Your task to perform on an android device: Open accessibility settings Image 0: 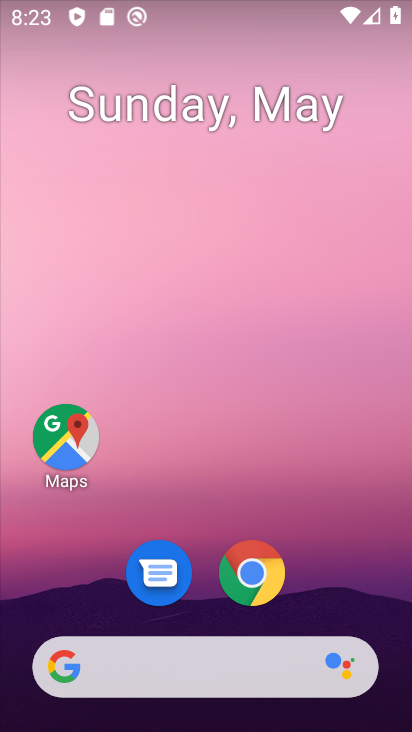
Step 0: drag from (374, 618) to (301, 199)
Your task to perform on an android device: Open accessibility settings Image 1: 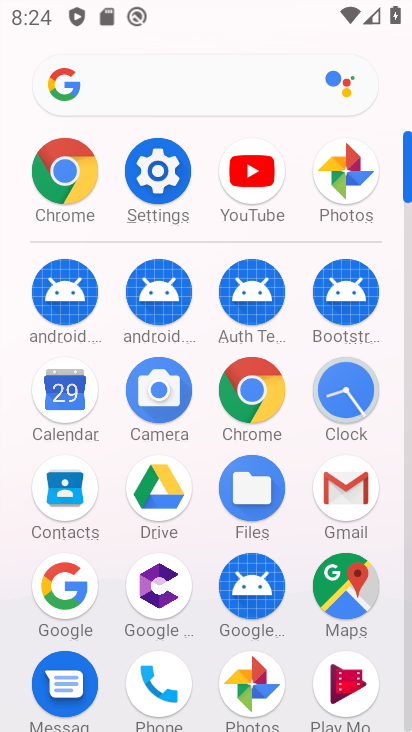
Step 1: click (170, 184)
Your task to perform on an android device: Open accessibility settings Image 2: 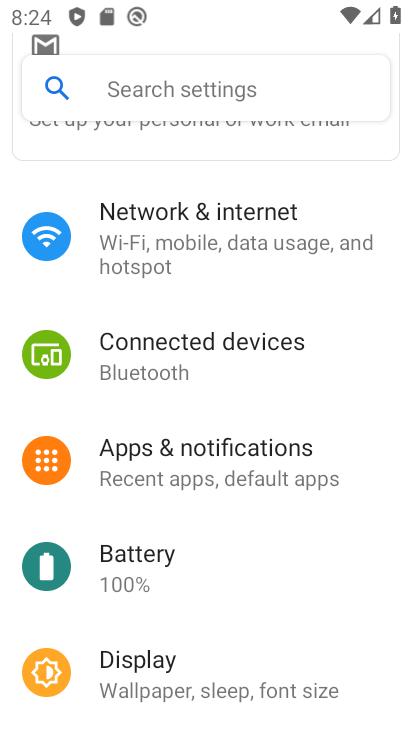
Step 2: drag from (209, 600) to (287, 112)
Your task to perform on an android device: Open accessibility settings Image 3: 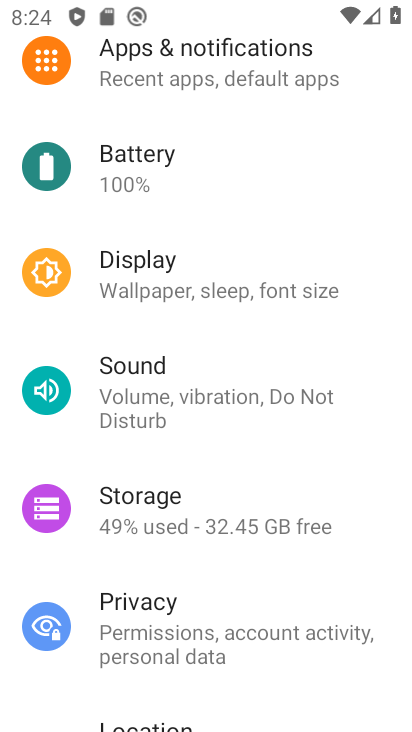
Step 3: drag from (255, 693) to (230, 192)
Your task to perform on an android device: Open accessibility settings Image 4: 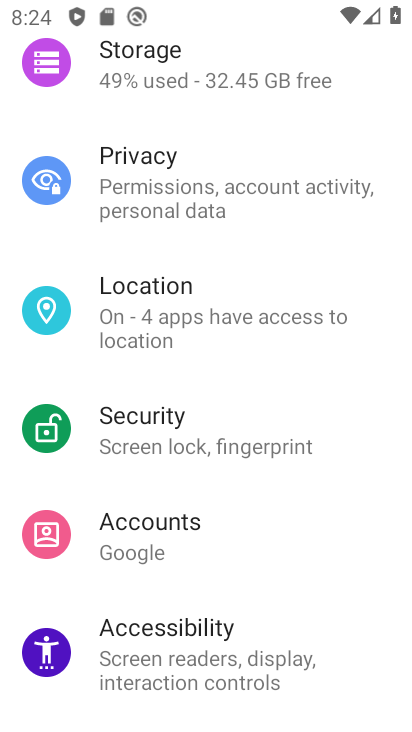
Step 4: click (216, 693)
Your task to perform on an android device: Open accessibility settings Image 5: 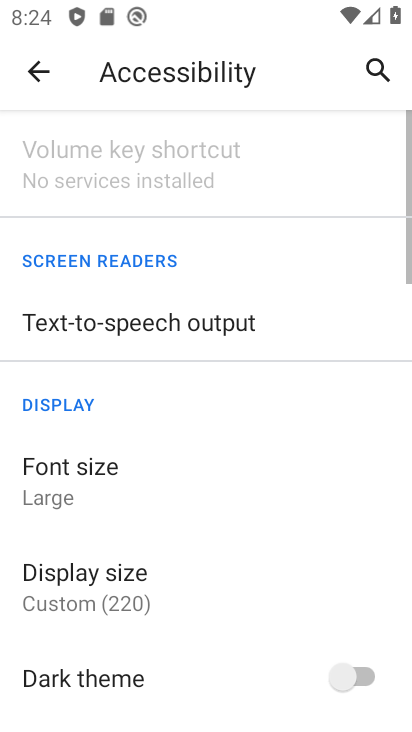
Step 5: task complete